Your task to perform on an android device: Open calendar and show me the fourth week of next month Image 0: 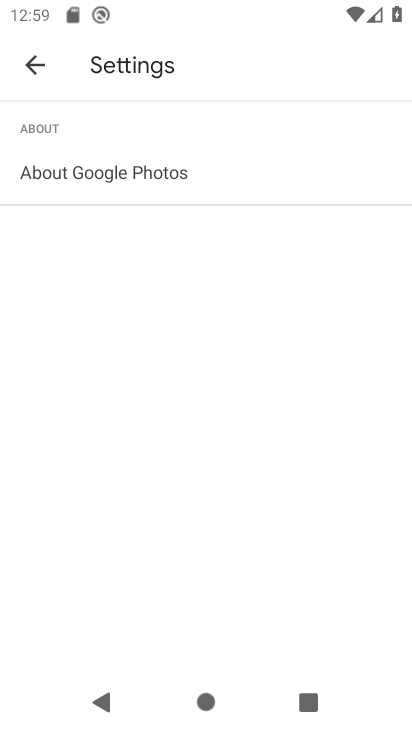
Step 0: press home button
Your task to perform on an android device: Open calendar and show me the fourth week of next month Image 1: 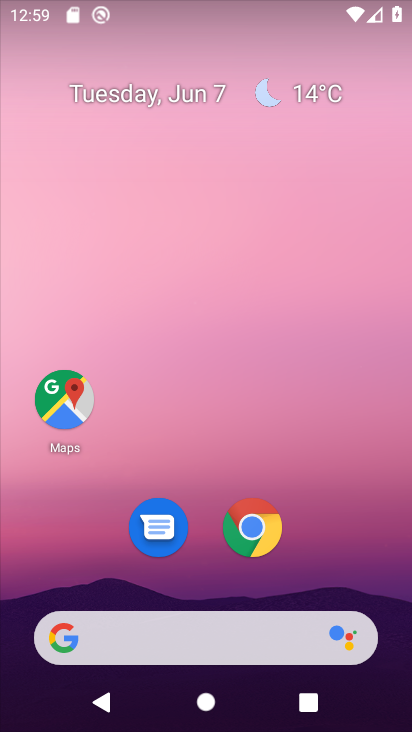
Step 1: drag from (347, 566) to (345, 57)
Your task to perform on an android device: Open calendar and show me the fourth week of next month Image 2: 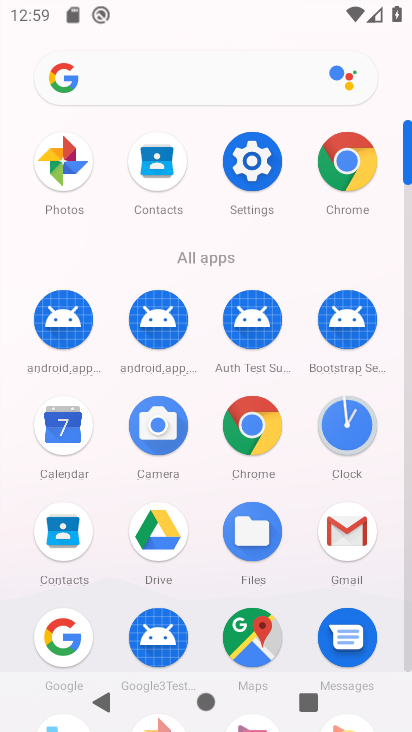
Step 2: click (74, 433)
Your task to perform on an android device: Open calendar and show me the fourth week of next month Image 3: 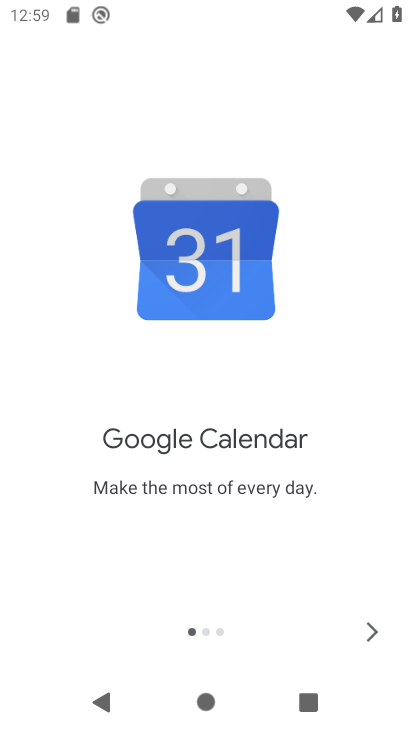
Step 3: click (368, 628)
Your task to perform on an android device: Open calendar and show me the fourth week of next month Image 4: 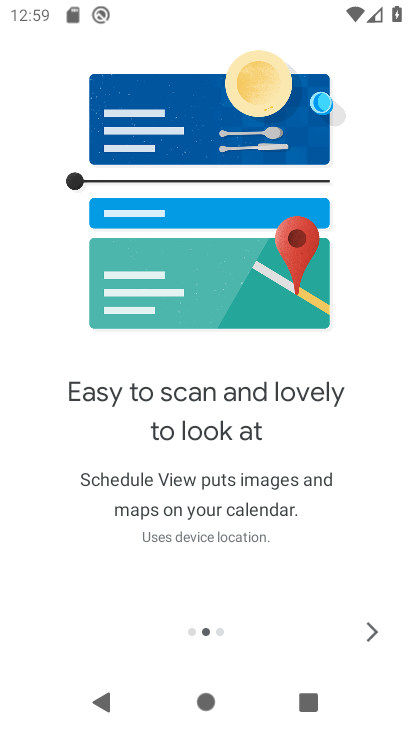
Step 4: click (368, 628)
Your task to perform on an android device: Open calendar and show me the fourth week of next month Image 5: 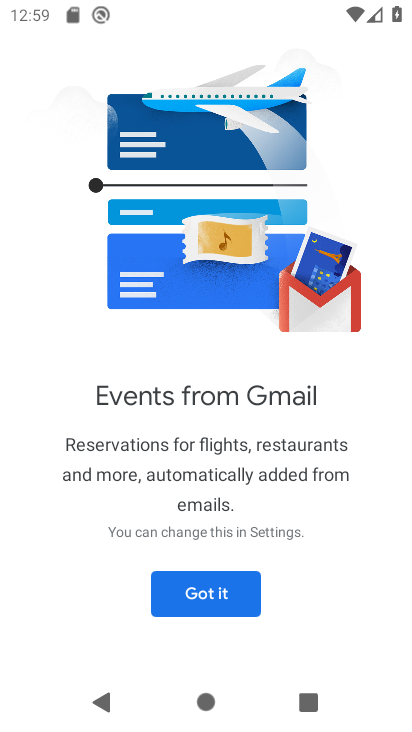
Step 5: click (218, 595)
Your task to perform on an android device: Open calendar and show me the fourth week of next month Image 6: 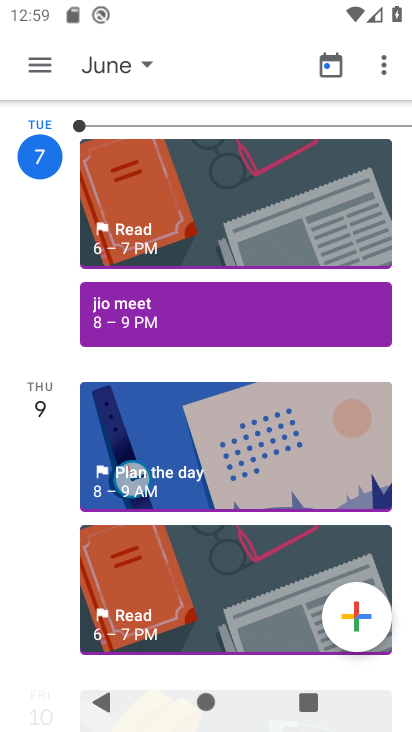
Step 6: click (101, 77)
Your task to perform on an android device: Open calendar and show me the fourth week of next month Image 7: 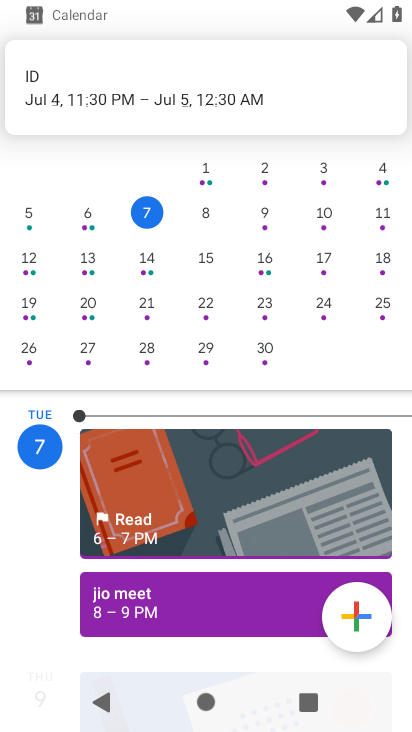
Step 7: drag from (372, 265) to (11, 294)
Your task to perform on an android device: Open calendar and show me the fourth week of next month Image 8: 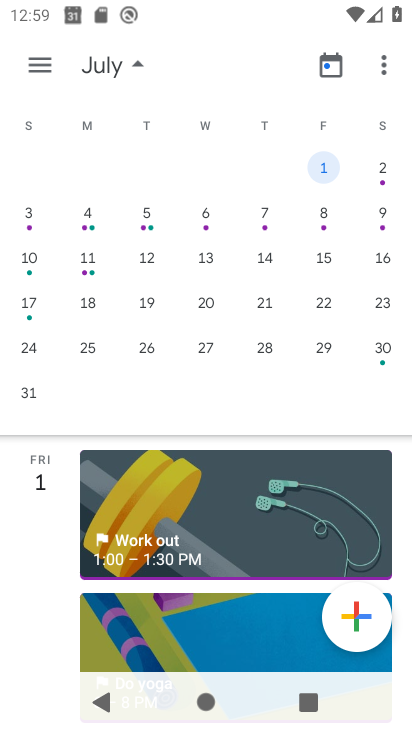
Step 8: click (36, 304)
Your task to perform on an android device: Open calendar and show me the fourth week of next month Image 9: 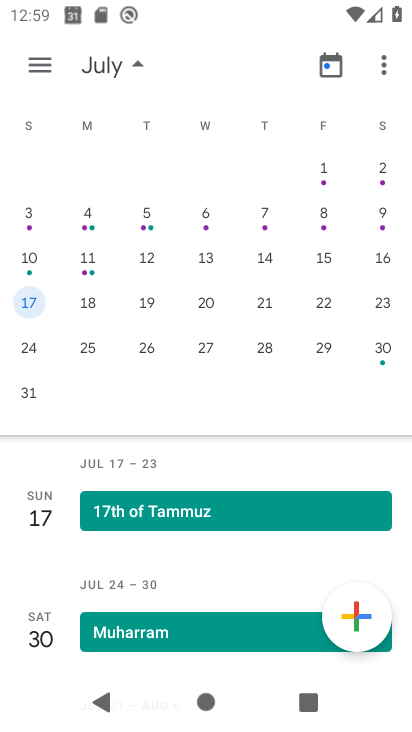
Step 9: task complete